Your task to perform on an android device: turn on notifications settings in the gmail app Image 0: 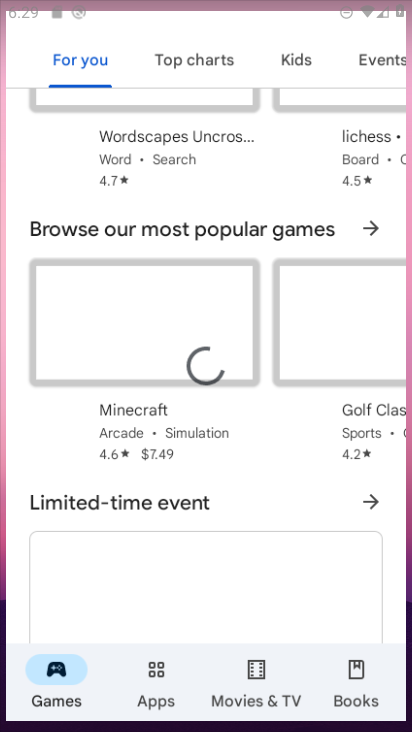
Step 0: drag from (223, 631) to (288, 84)
Your task to perform on an android device: turn on notifications settings in the gmail app Image 1: 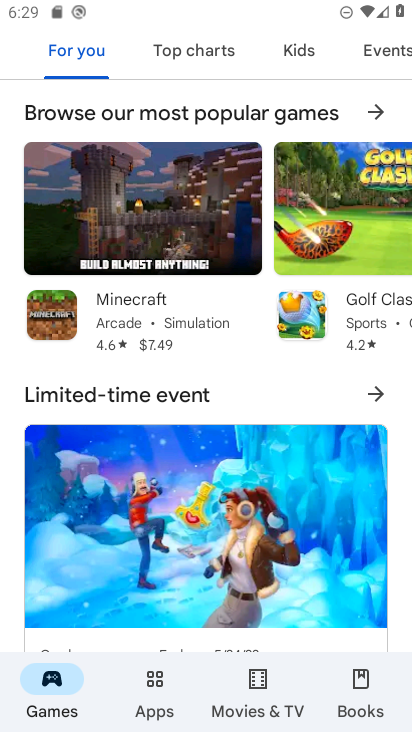
Step 1: press home button
Your task to perform on an android device: turn on notifications settings in the gmail app Image 2: 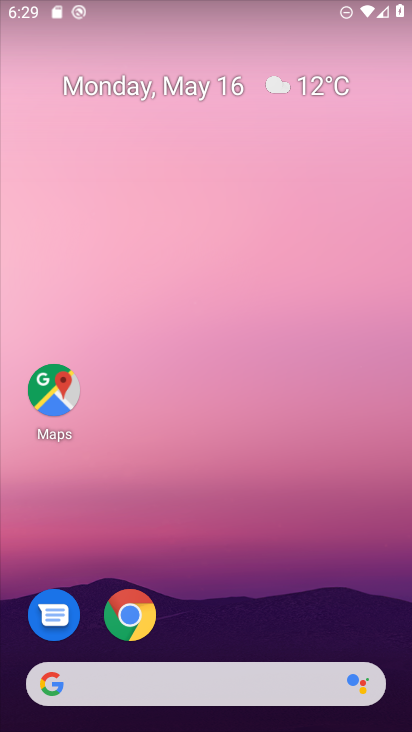
Step 2: press home button
Your task to perform on an android device: turn on notifications settings in the gmail app Image 3: 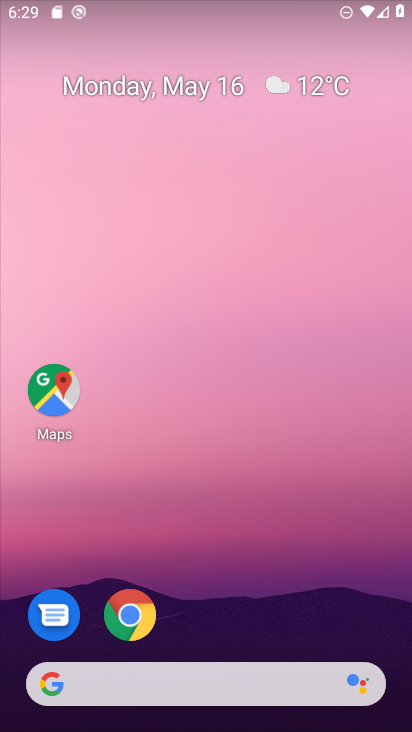
Step 3: drag from (239, 538) to (261, 0)
Your task to perform on an android device: turn on notifications settings in the gmail app Image 4: 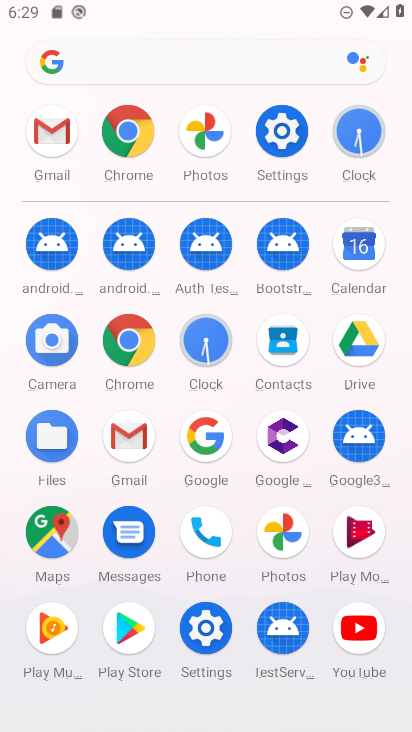
Step 4: click (50, 151)
Your task to perform on an android device: turn on notifications settings in the gmail app Image 5: 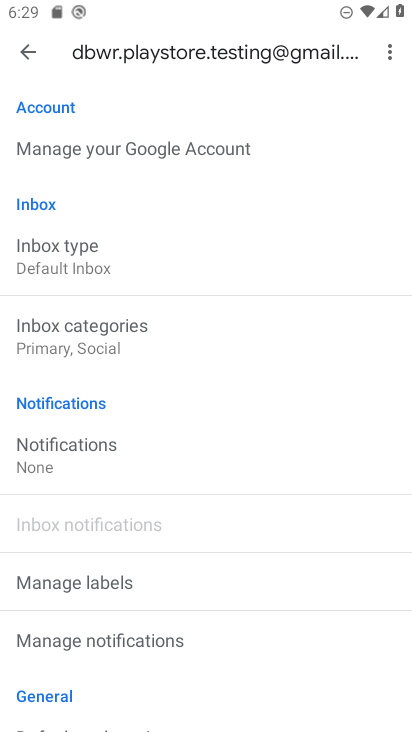
Step 5: click (60, 465)
Your task to perform on an android device: turn on notifications settings in the gmail app Image 6: 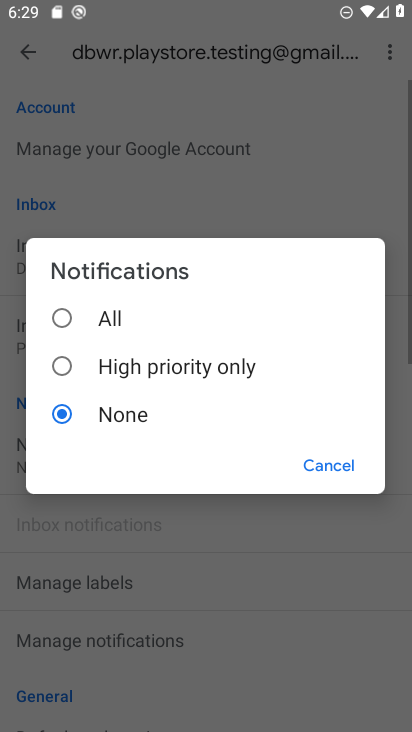
Step 6: click (58, 325)
Your task to perform on an android device: turn on notifications settings in the gmail app Image 7: 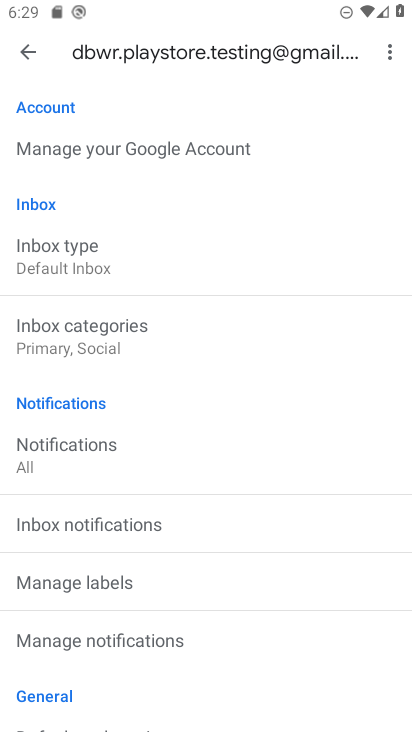
Step 7: task complete